Your task to perform on an android device: open app "Google Chat" (install if not already installed) Image 0: 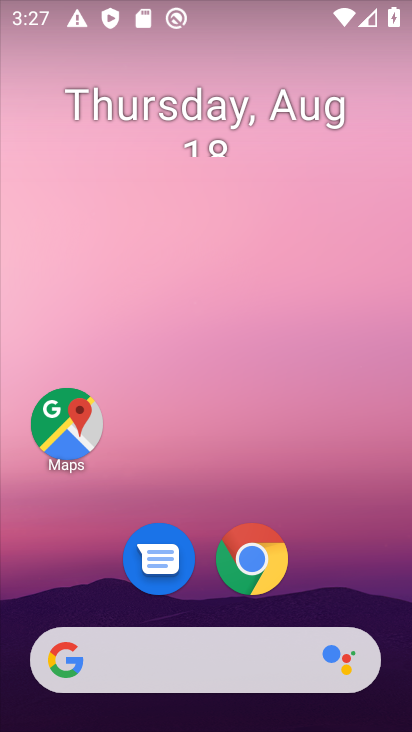
Step 0: click (335, 423)
Your task to perform on an android device: open app "Google Chat" (install if not already installed) Image 1: 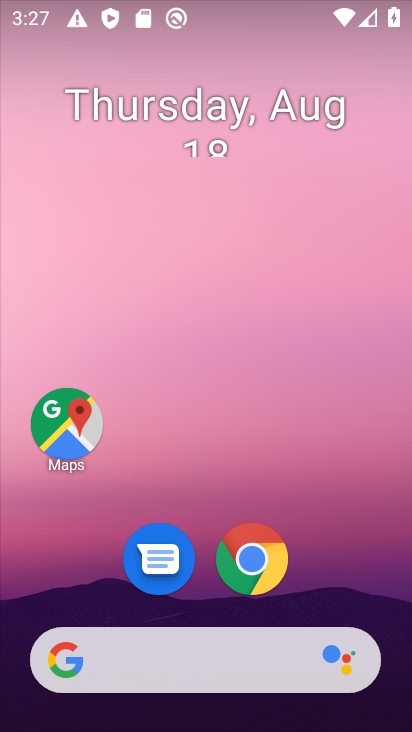
Step 1: drag from (88, 613) to (167, 64)
Your task to perform on an android device: open app "Google Chat" (install if not already installed) Image 2: 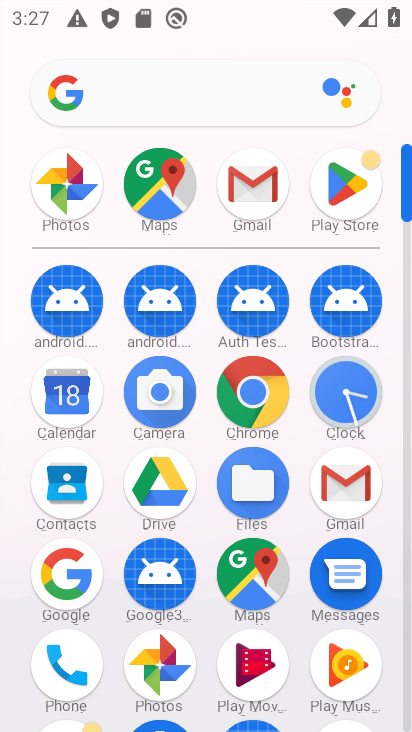
Step 2: click (350, 202)
Your task to perform on an android device: open app "Google Chat" (install if not already installed) Image 3: 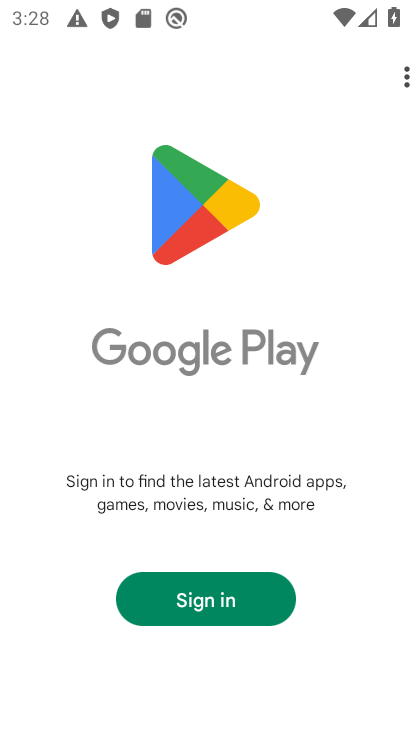
Step 3: click (235, 605)
Your task to perform on an android device: open app "Google Chat" (install if not already installed) Image 4: 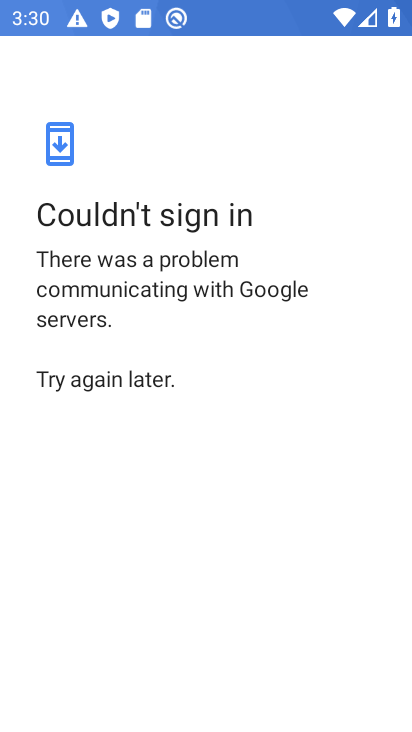
Step 4: task complete